Your task to perform on an android device: open a bookmark in the chrome app Image 0: 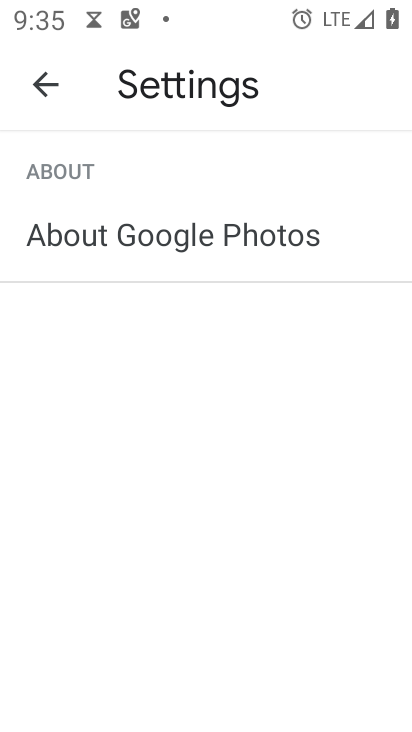
Step 0: press home button
Your task to perform on an android device: open a bookmark in the chrome app Image 1: 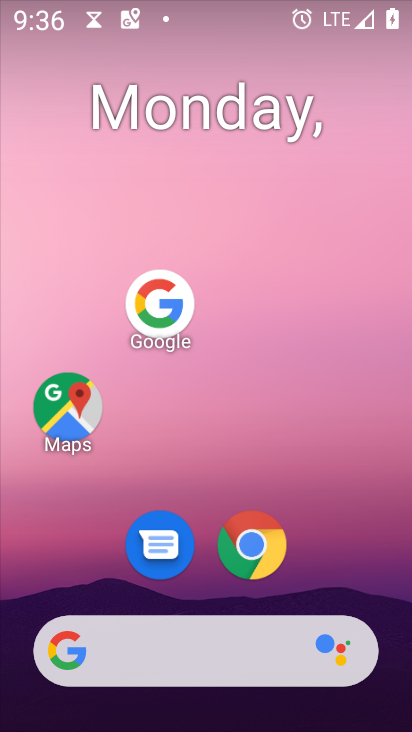
Step 1: click (245, 543)
Your task to perform on an android device: open a bookmark in the chrome app Image 2: 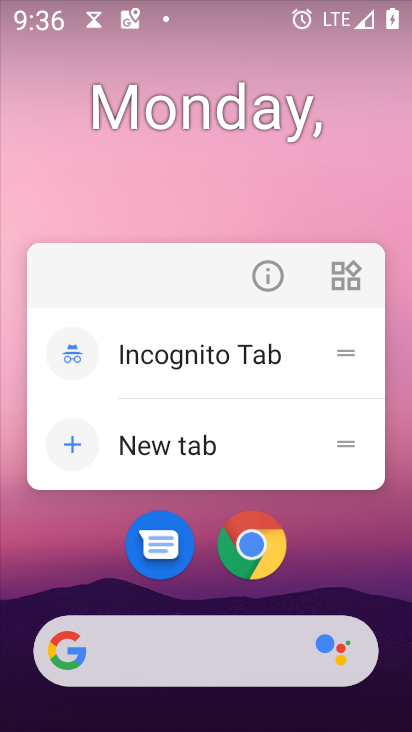
Step 2: click (258, 552)
Your task to perform on an android device: open a bookmark in the chrome app Image 3: 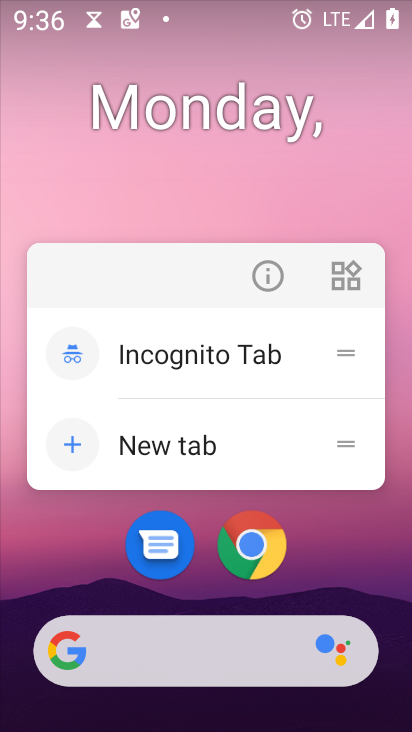
Step 3: click (259, 559)
Your task to perform on an android device: open a bookmark in the chrome app Image 4: 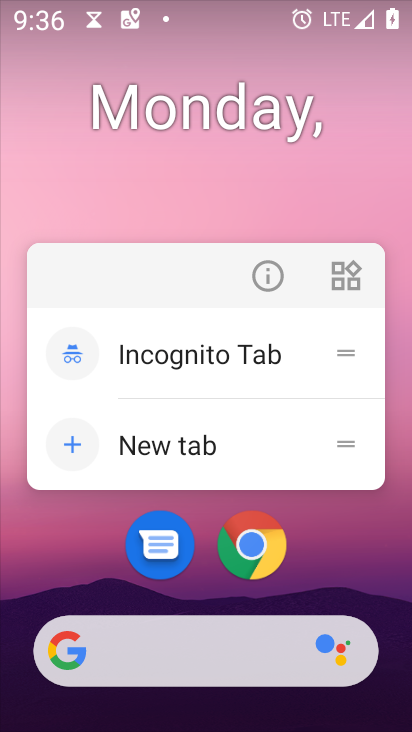
Step 4: click (253, 569)
Your task to perform on an android device: open a bookmark in the chrome app Image 5: 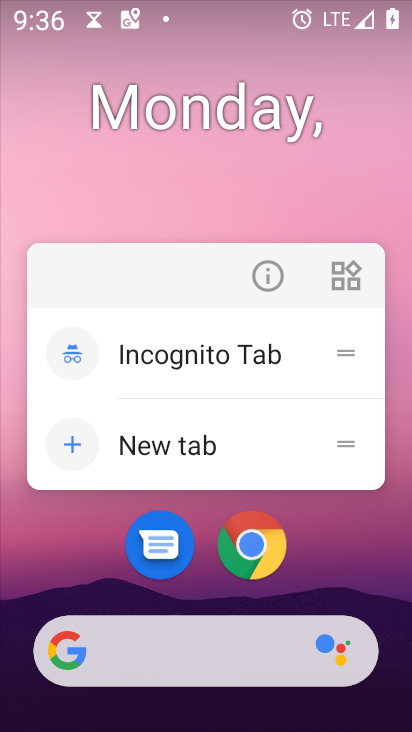
Step 5: click (254, 552)
Your task to perform on an android device: open a bookmark in the chrome app Image 6: 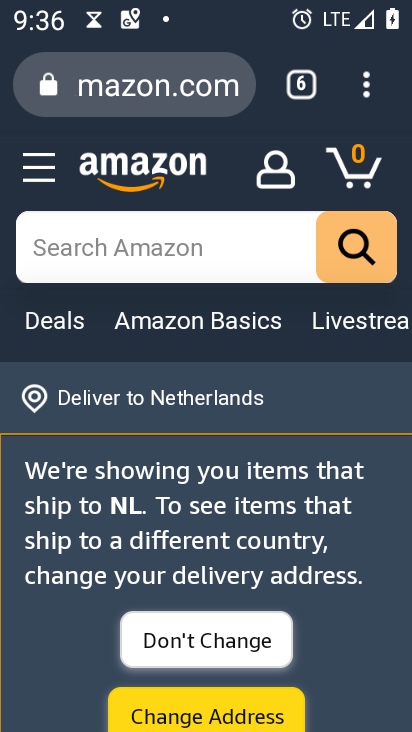
Step 6: task complete